Your task to perform on an android device: Open Wikipedia Image 0: 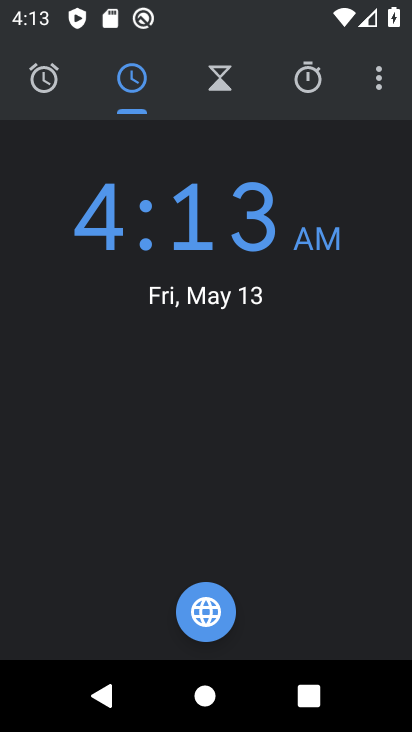
Step 0: press home button
Your task to perform on an android device: Open Wikipedia Image 1: 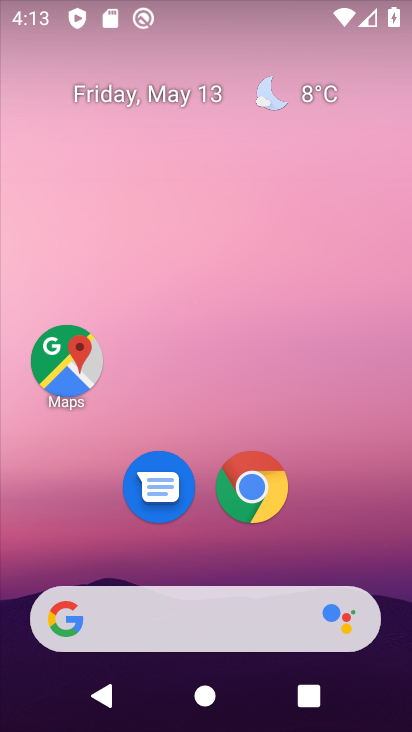
Step 1: click (233, 511)
Your task to perform on an android device: Open Wikipedia Image 2: 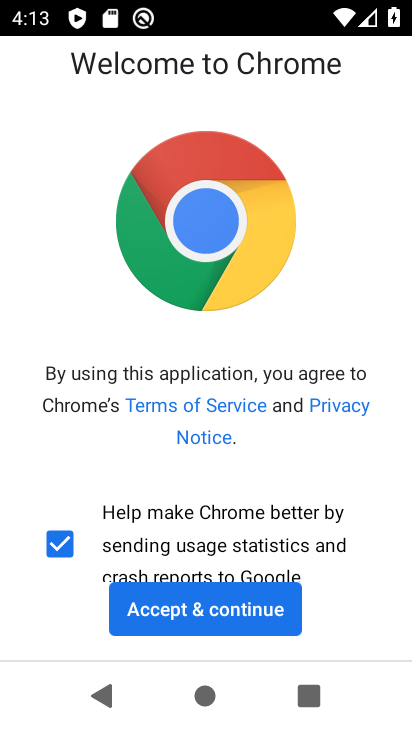
Step 2: click (216, 613)
Your task to perform on an android device: Open Wikipedia Image 3: 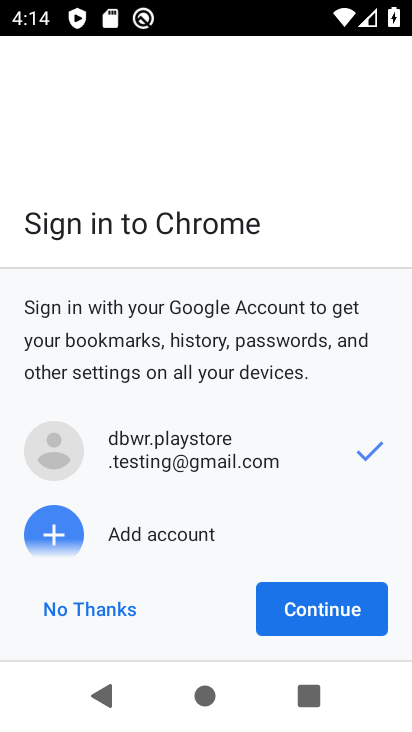
Step 3: click (317, 610)
Your task to perform on an android device: Open Wikipedia Image 4: 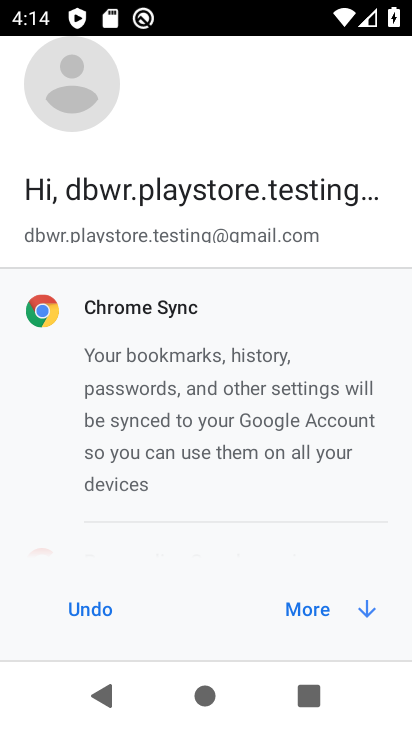
Step 4: click (317, 610)
Your task to perform on an android device: Open Wikipedia Image 5: 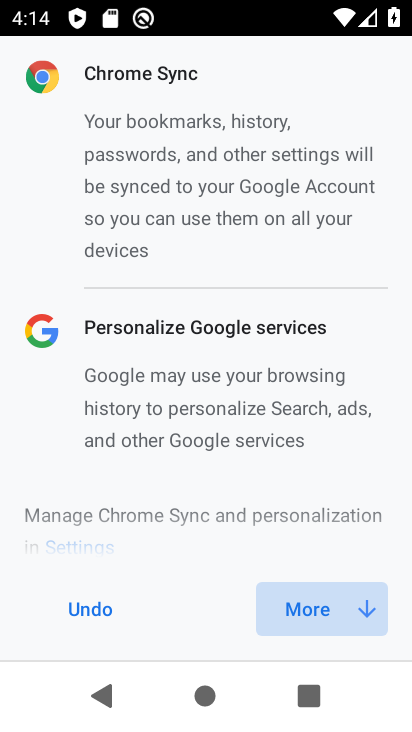
Step 5: click (317, 610)
Your task to perform on an android device: Open Wikipedia Image 6: 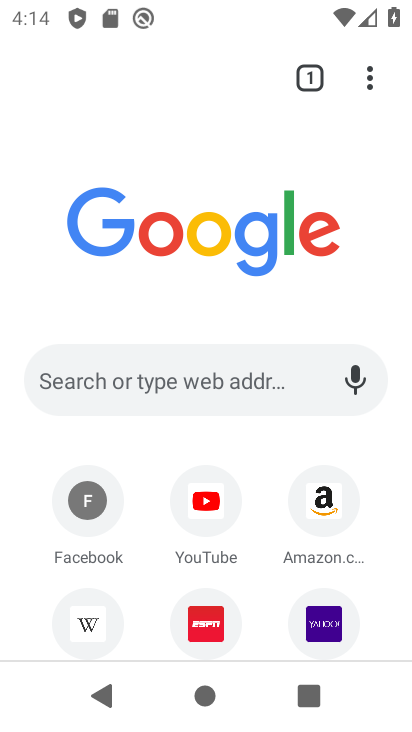
Step 6: click (85, 603)
Your task to perform on an android device: Open Wikipedia Image 7: 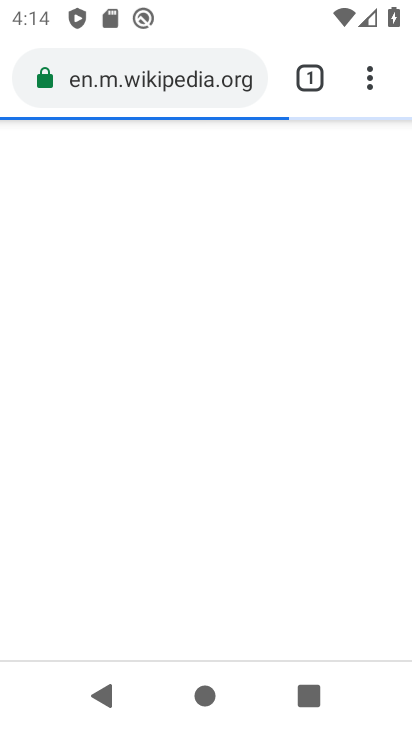
Step 7: task complete